Your task to perform on an android device: open chrome privacy settings Image 0: 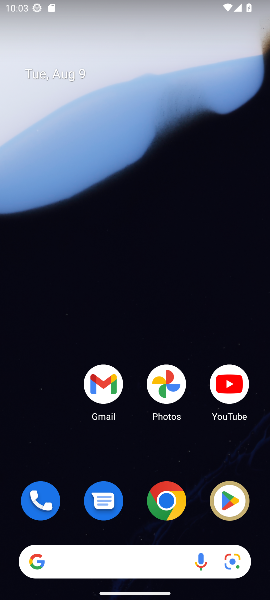
Step 0: click (164, 505)
Your task to perform on an android device: open chrome privacy settings Image 1: 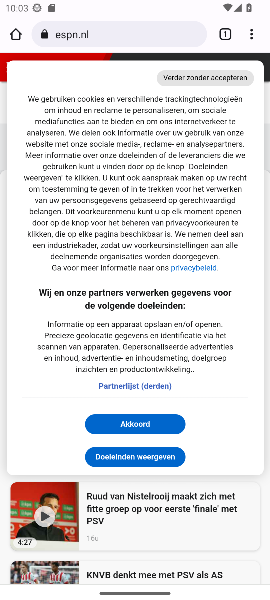
Step 1: click (249, 29)
Your task to perform on an android device: open chrome privacy settings Image 2: 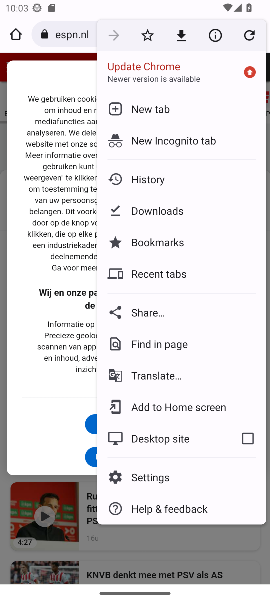
Step 2: click (131, 479)
Your task to perform on an android device: open chrome privacy settings Image 3: 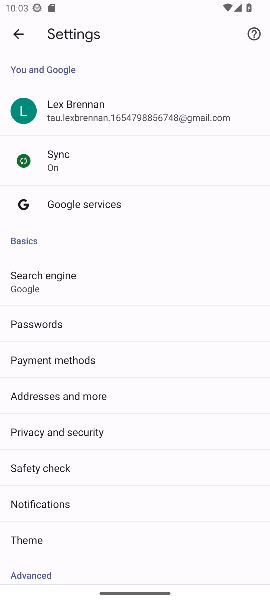
Step 3: drag from (91, 507) to (105, 312)
Your task to perform on an android device: open chrome privacy settings Image 4: 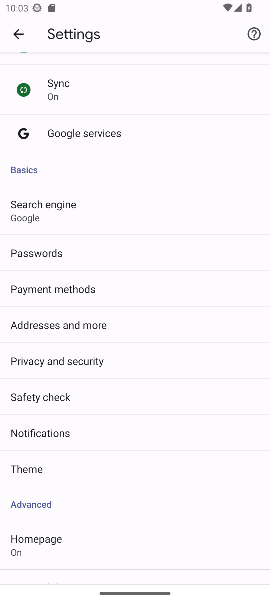
Step 4: click (90, 496)
Your task to perform on an android device: open chrome privacy settings Image 5: 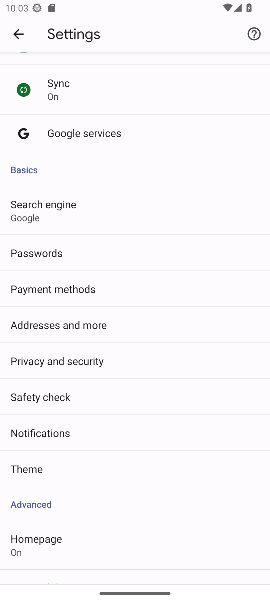
Step 5: drag from (76, 294) to (76, 210)
Your task to perform on an android device: open chrome privacy settings Image 6: 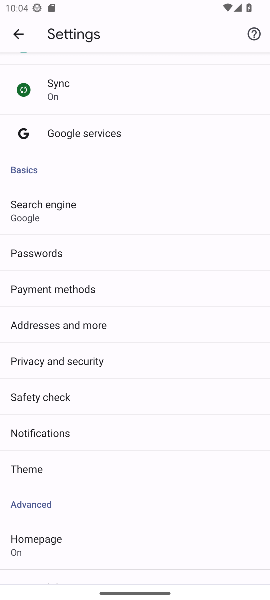
Step 6: click (101, 364)
Your task to perform on an android device: open chrome privacy settings Image 7: 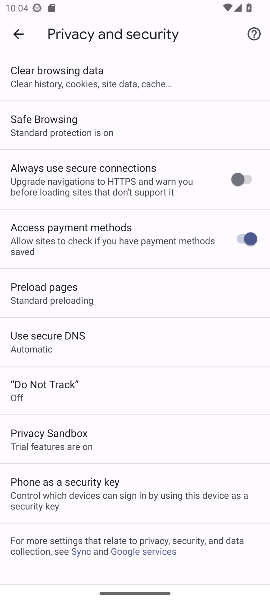
Step 7: task complete